Your task to perform on an android device: Go to Amazon Image 0: 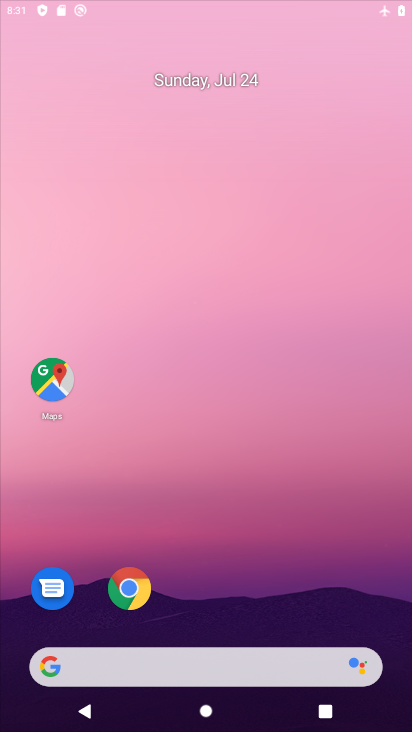
Step 0: click (184, 157)
Your task to perform on an android device: Go to Amazon Image 1: 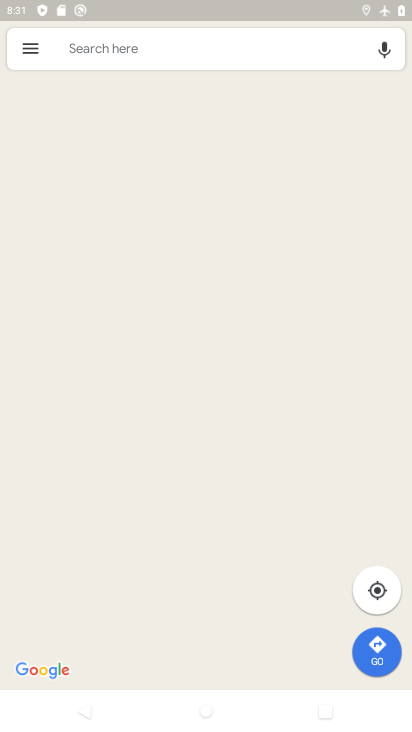
Step 1: press home button
Your task to perform on an android device: Go to Amazon Image 2: 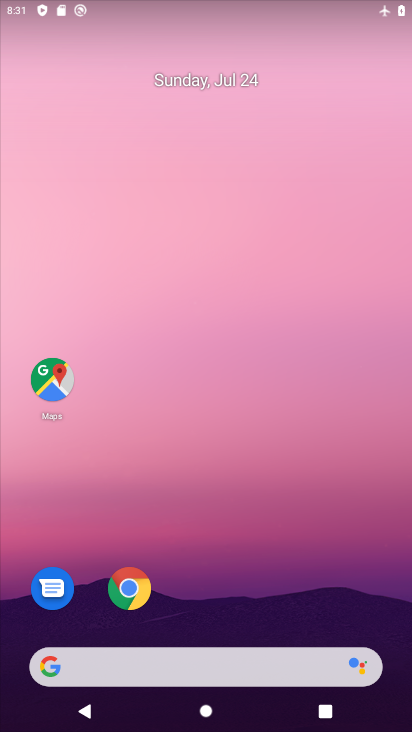
Step 2: click (140, 582)
Your task to perform on an android device: Go to Amazon Image 3: 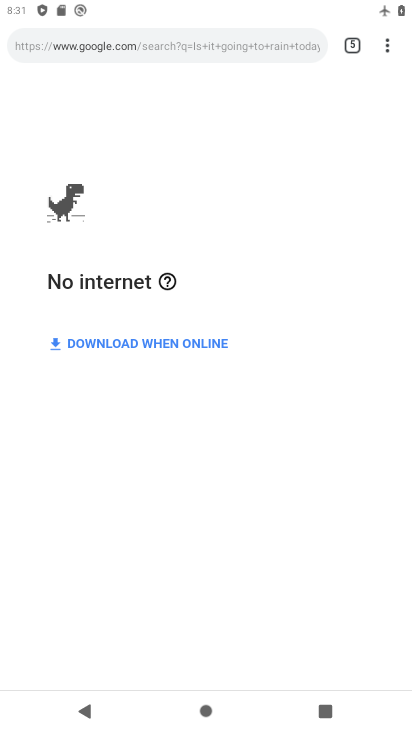
Step 3: click (397, 48)
Your task to perform on an android device: Go to Amazon Image 4: 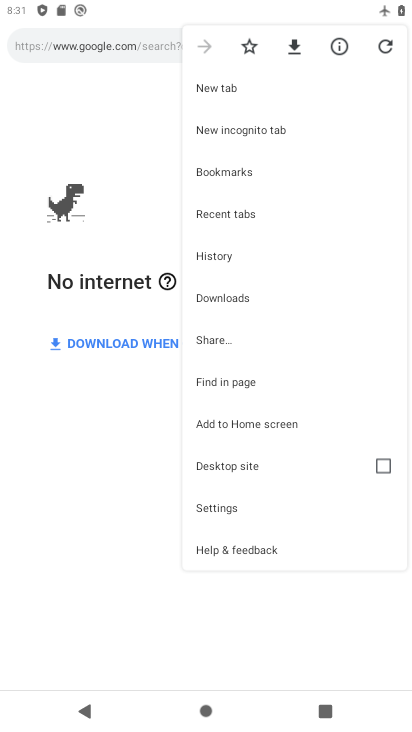
Step 4: click (198, 75)
Your task to perform on an android device: Go to Amazon Image 5: 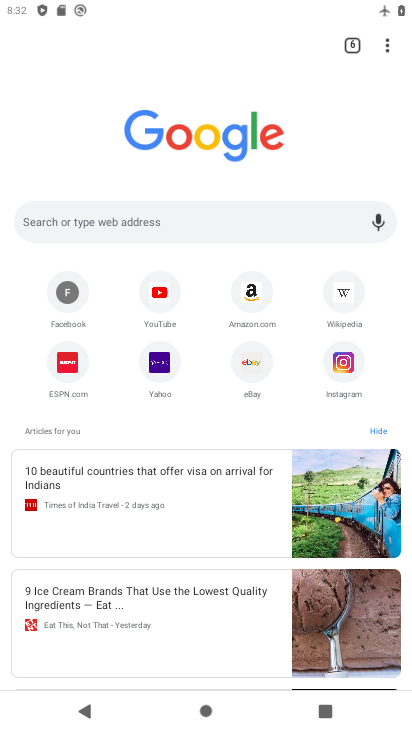
Step 5: click (257, 285)
Your task to perform on an android device: Go to Amazon Image 6: 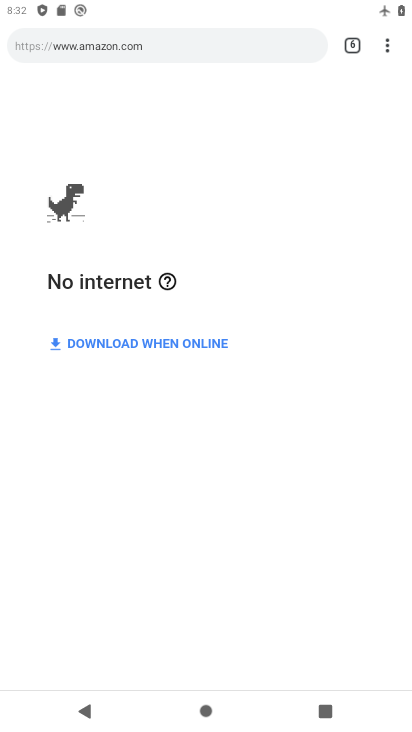
Step 6: task complete